Your task to perform on an android device: turn pop-ups off in chrome Image 0: 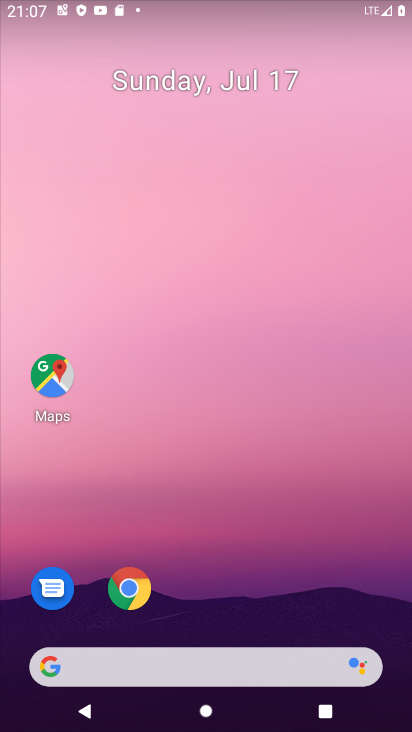
Step 0: press home button
Your task to perform on an android device: turn pop-ups off in chrome Image 1: 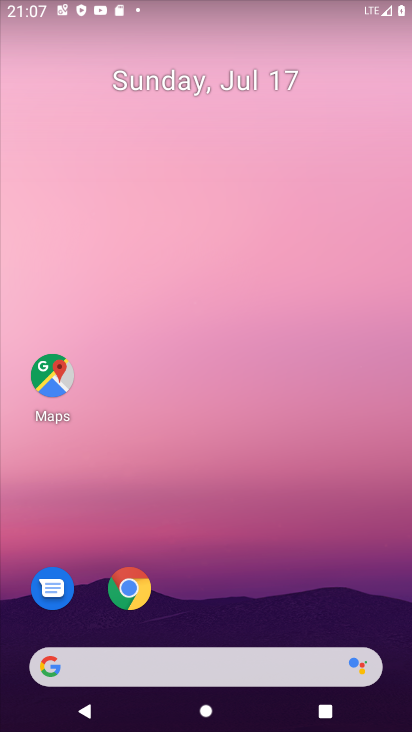
Step 1: click (124, 587)
Your task to perform on an android device: turn pop-ups off in chrome Image 2: 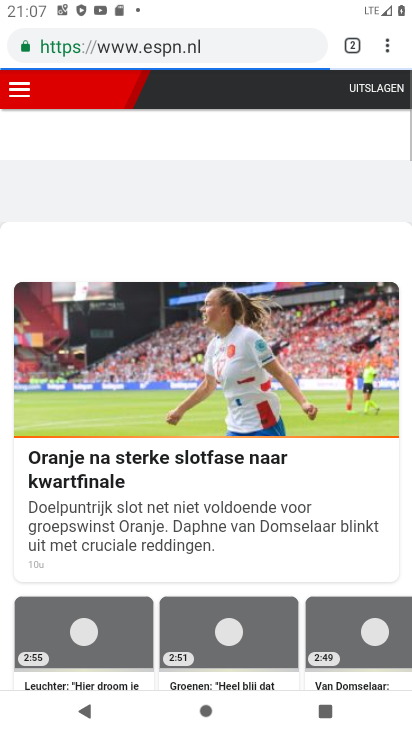
Step 2: click (387, 43)
Your task to perform on an android device: turn pop-ups off in chrome Image 3: 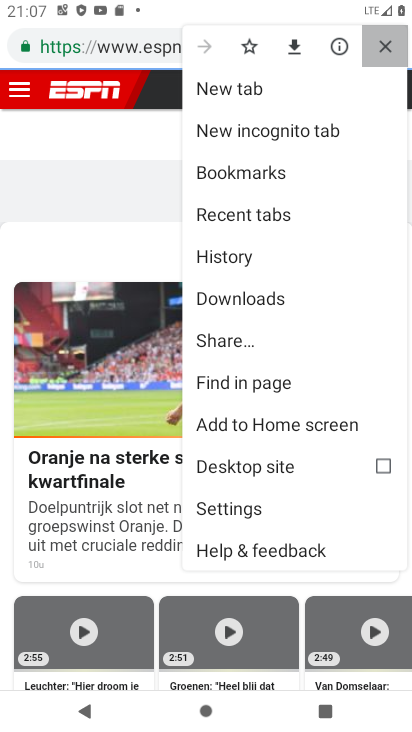
Step 3: drag from (387, 43) to (256, 547)
Your task to perform on an android device: turn pop-ups off in chrome Image 4: 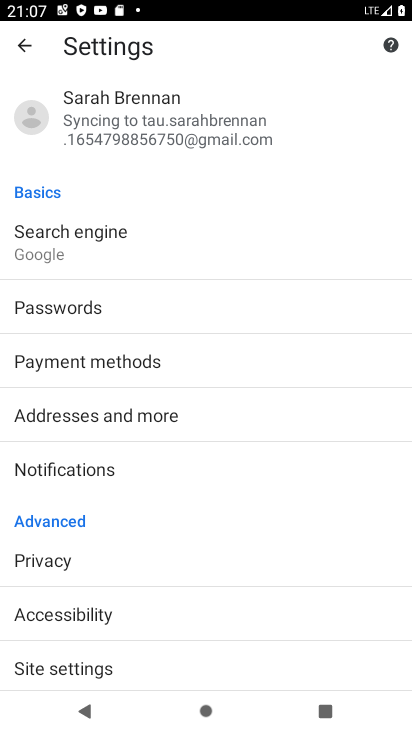
Step 4: click (81, 668)
Your task to perform on an android device: turn pop-ups off in chrome Image 5: 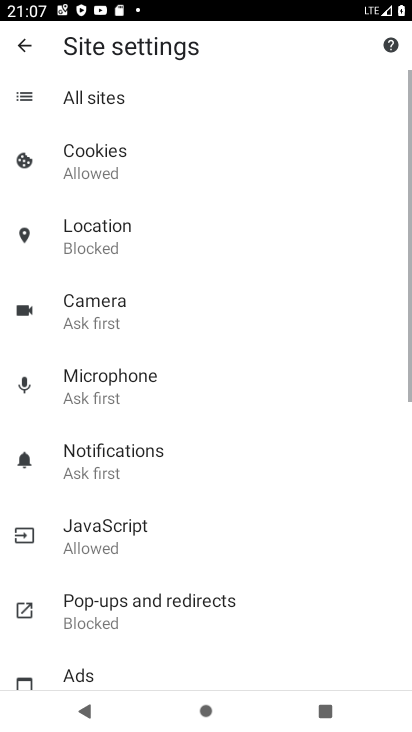
Step 5: click (145, 601)
Your task to perform on an android device: turn pop-ups off in chrome Image 6: 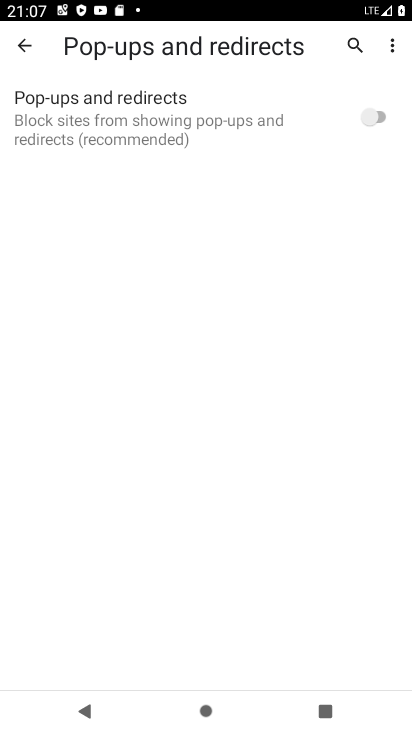
Step 6: task complete